Your task to perform on an android device: uninstall "Airtel Thanks" Image 0: 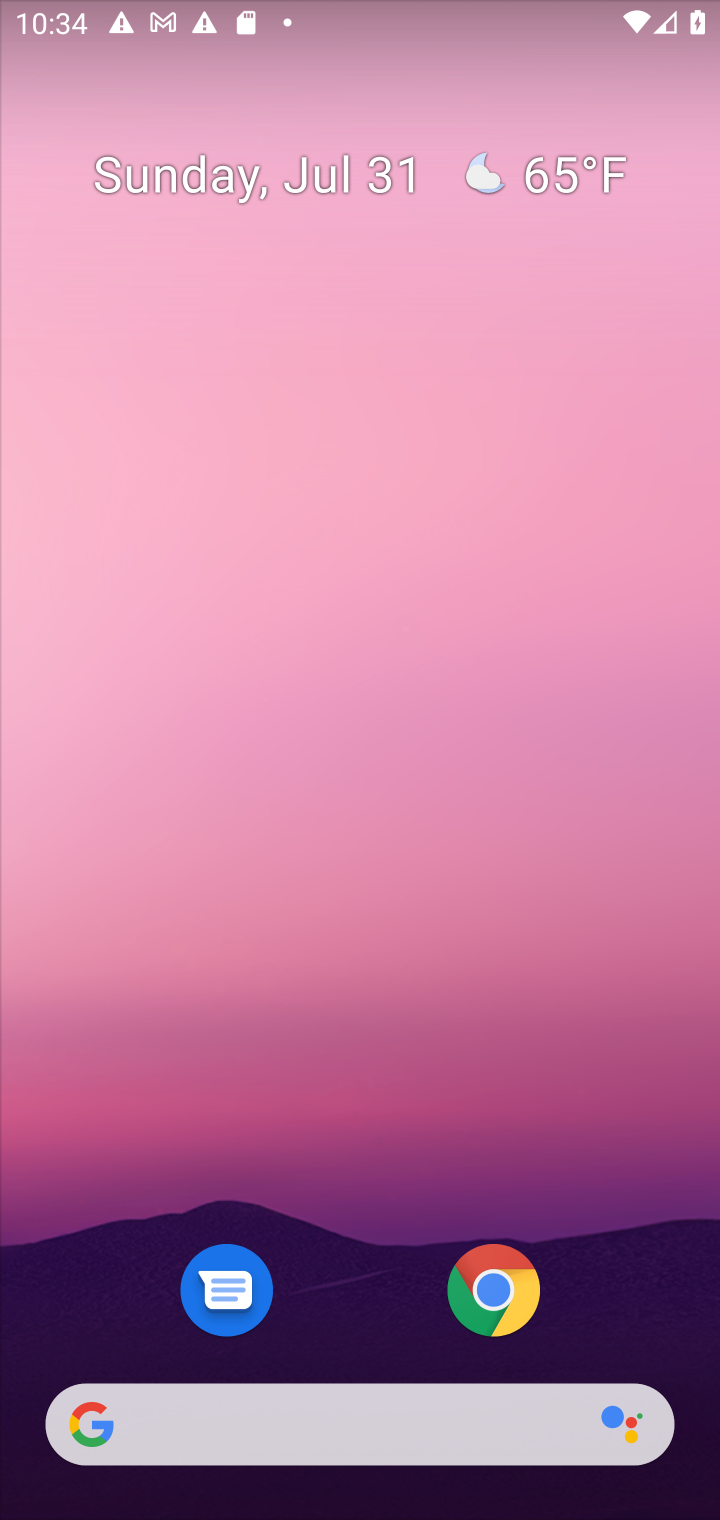
Step 0: press home button
Your task to perform on an android device: uninstall "Airtel Thanks" Image 1: 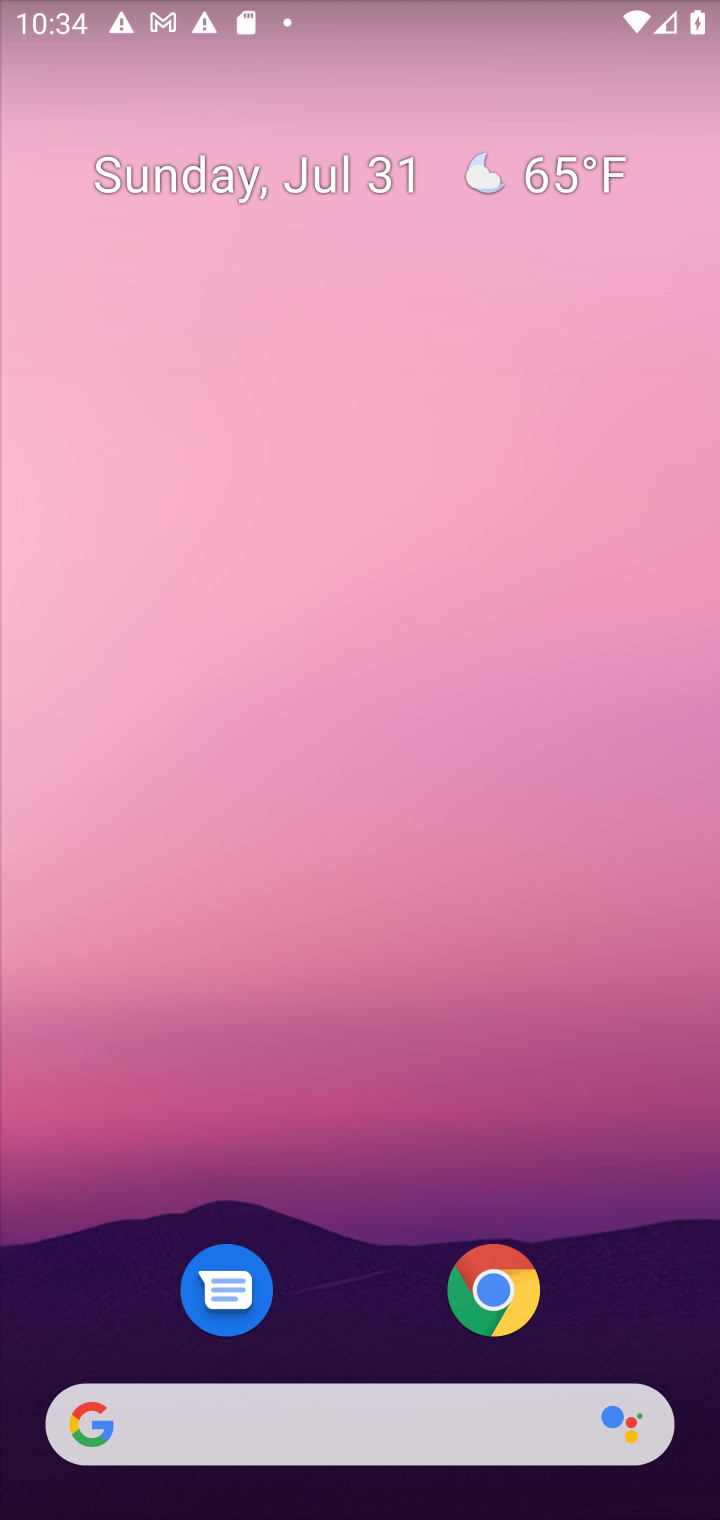
Step 1: drag from (639, 1300) to (616, 219)
Your task to perform on an android device: uninstall "Airtel Thanks" Image 2: 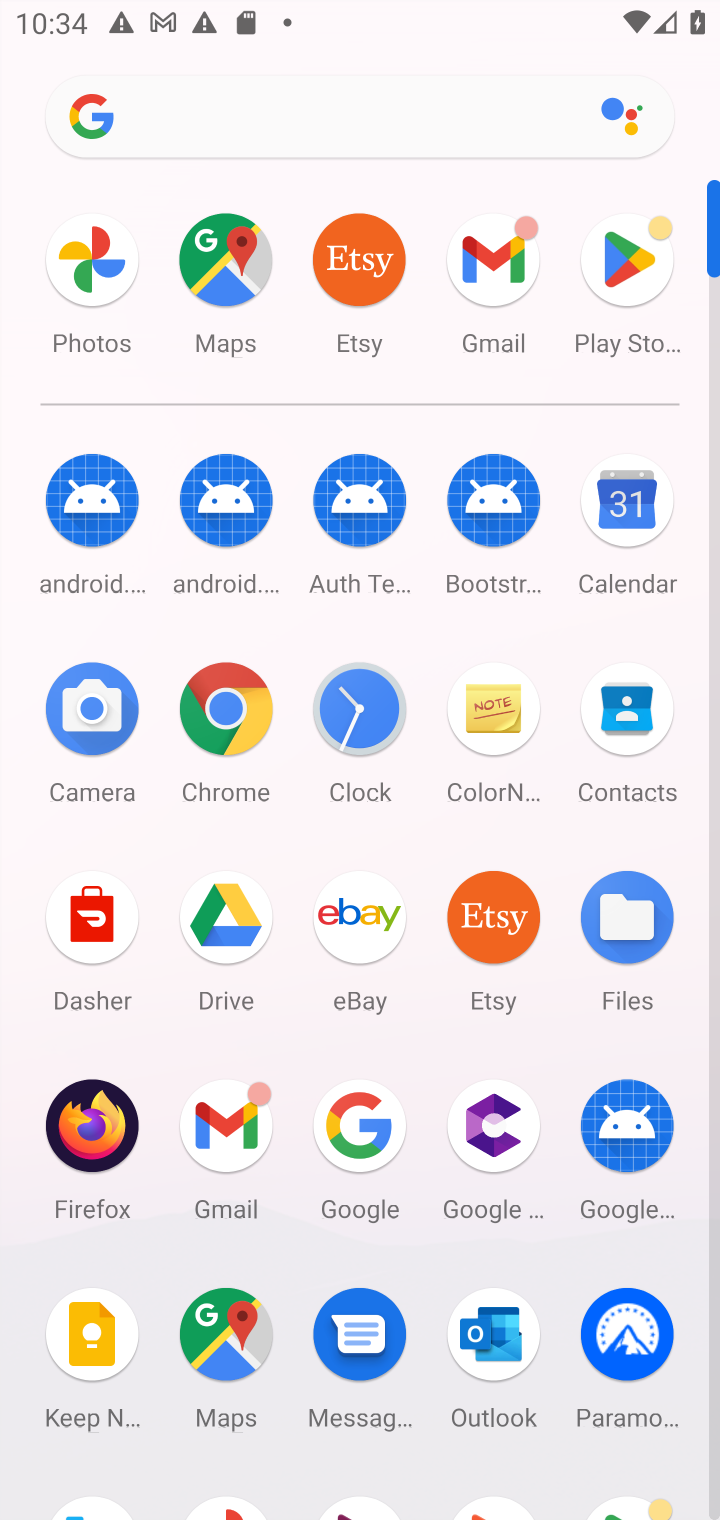
Step 2: click (628, 253)
Your task to perform on an android device: uninstall "Airtel Thanks" Image 3: 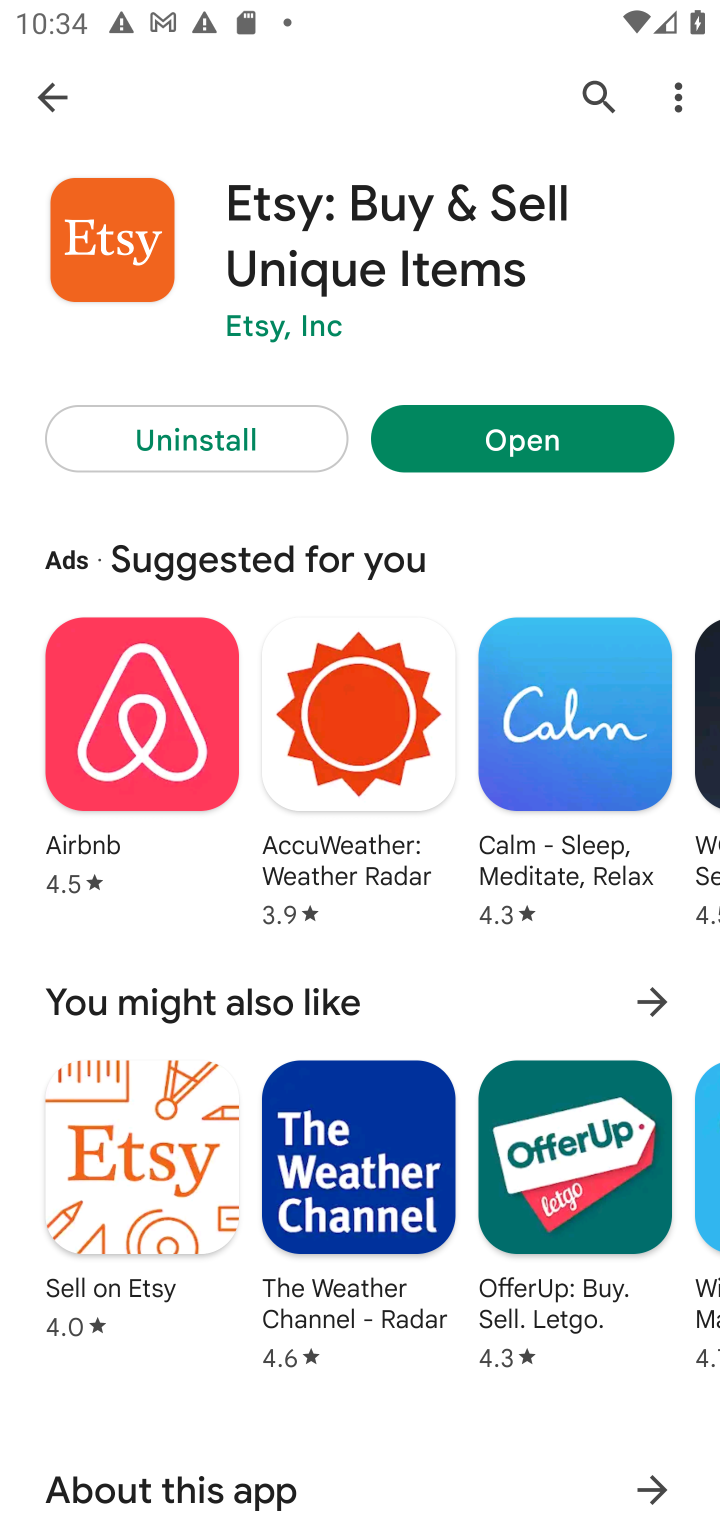
Step 3: click (578, 95)
Your task to perform on an android device: uninstall "Airtel Thanks" Image 4: 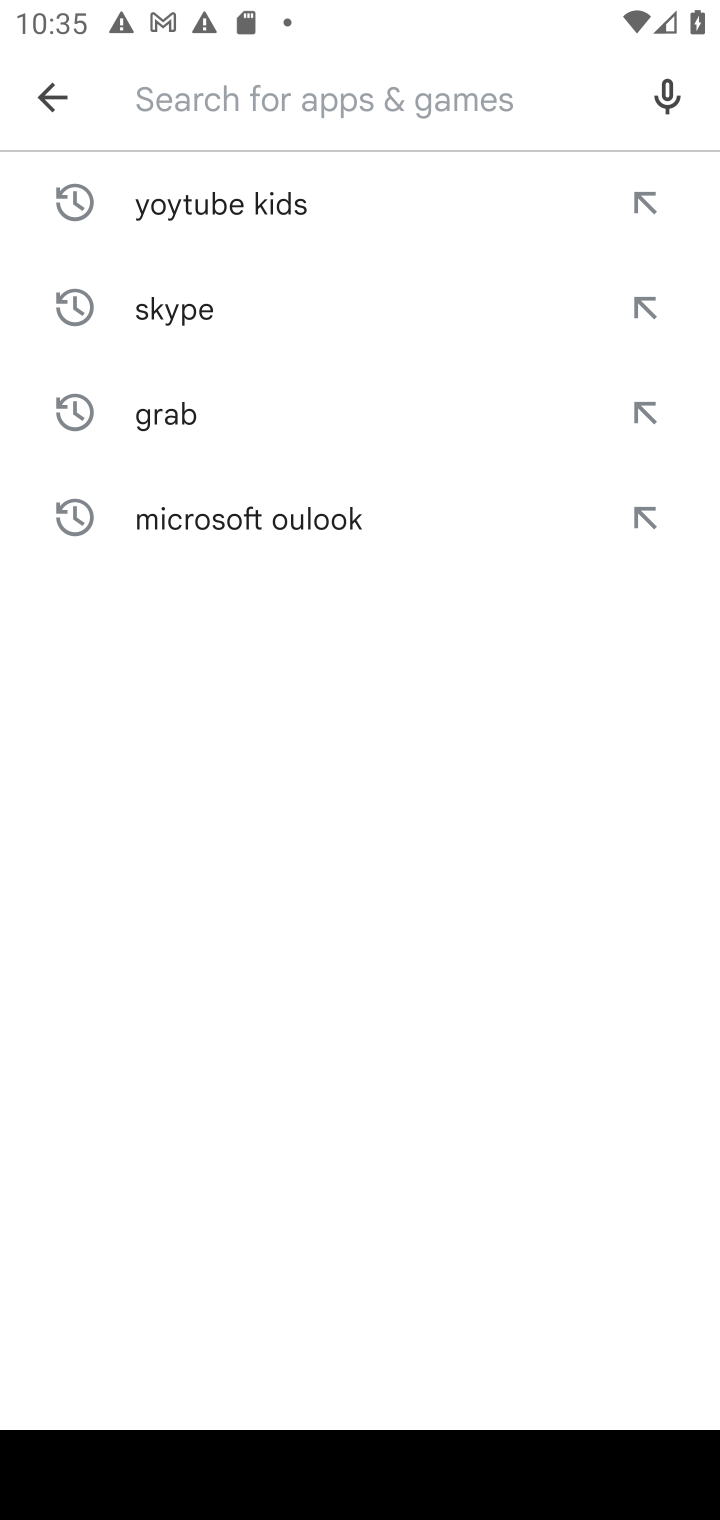
Step 4: type "airtel thanks"
Your task to perform on an android device: uninstall "Airtel Thanks" Image 5: 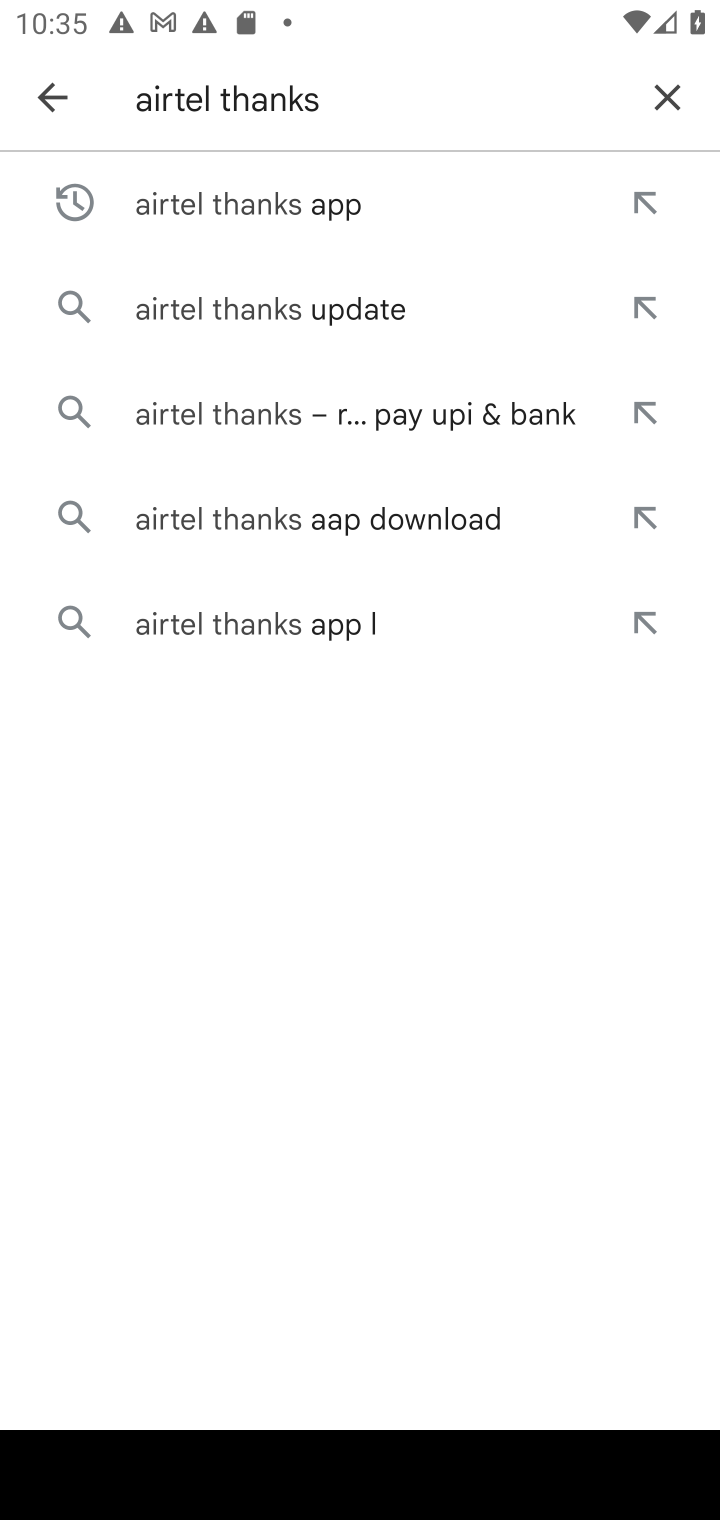
Step 5: click (344, 211)
Your task to perform on an android device: uninstall "Airtel Thanks" Image 6: 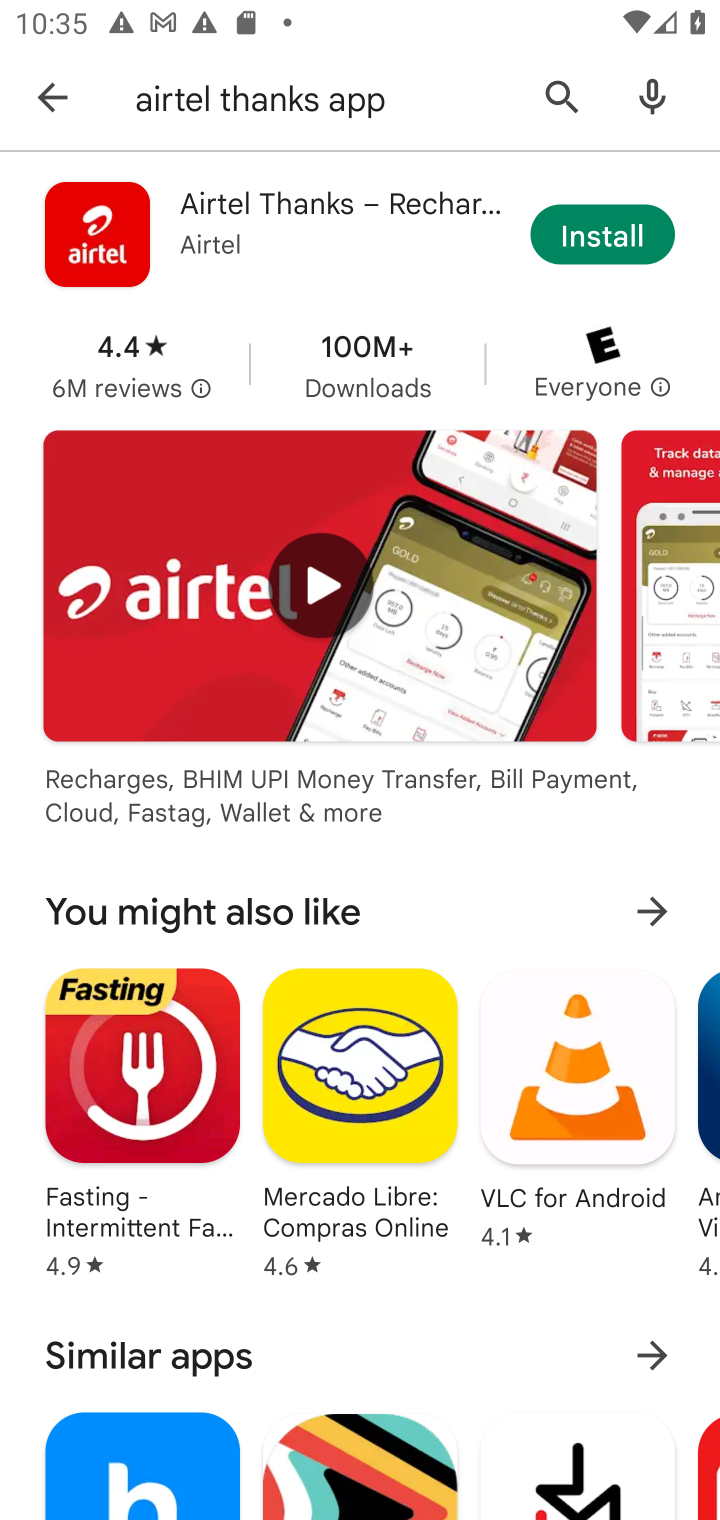
Step 6: task complete